Your task to perform on an android device: open app "Speedtest by Ookla" (install if not already installed) Image 0: 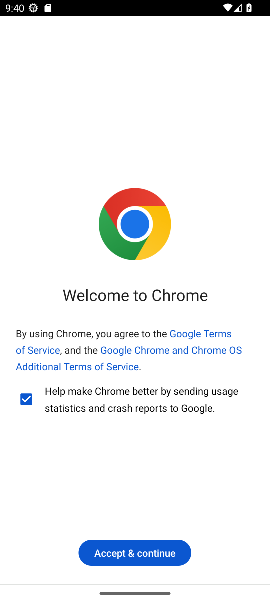
Step 0: press home button
Your task to perform on an android device: open app "Speedtest by Ookla" (install if not already installed) Image 1: 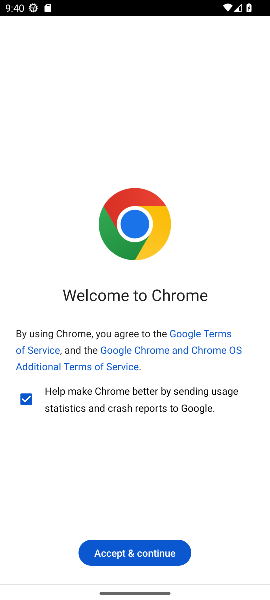
Step 1: press home button
Your task to perform on an android device: open app "Speedtest by Ookla" (install if not already installed) Image 2: 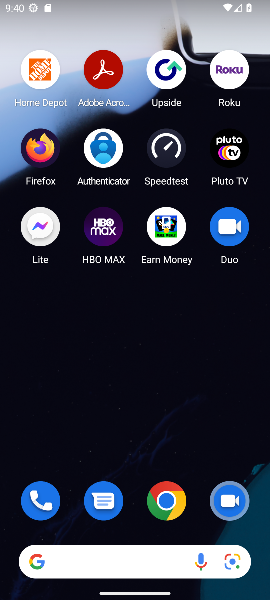
Step 2: click (166, 153)
Your task to perform on an android device: open app "Speedtest by Ookla" (install if not already installed) Image 3: 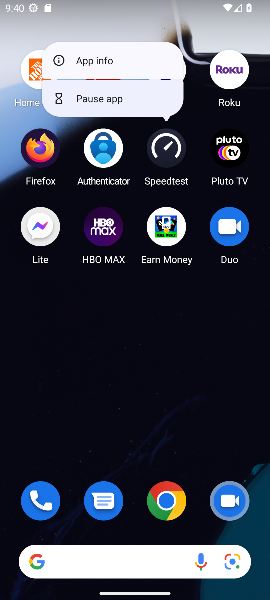
Step 3: click (166, 152)
Your task to perform on an android device: open app "Speedtest by Ookla" (install if not already installed) Image 4: 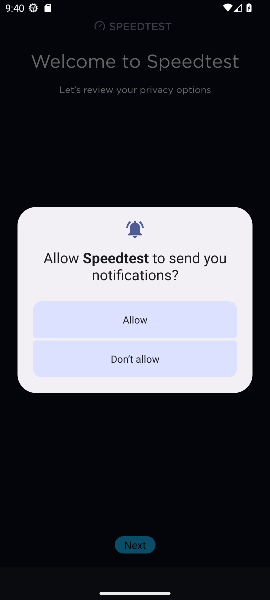
Step 4: click (155, 322)
Your task to perform on an android device: open app "Speedtest by Ookla" (install if not already installed) Image 5: 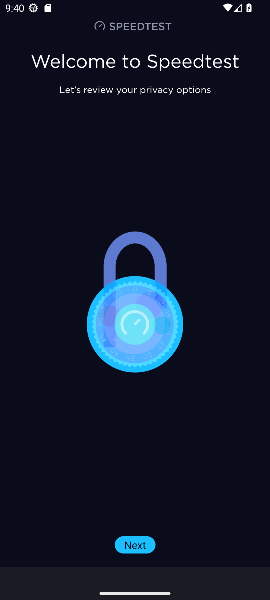
Step 5: task complete